Your task to perform on an android device: Open calendar and show me the fourth week of next month Image 0: 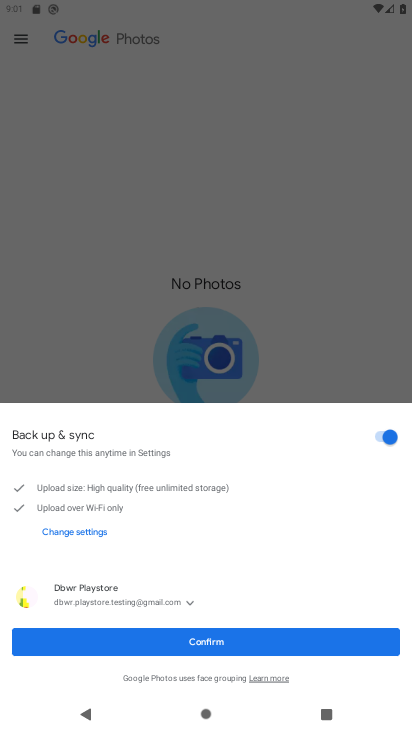
Step 0: press home button
Your task to perform on an android device: Open calendar and show me the fourth week of next month Image 1: 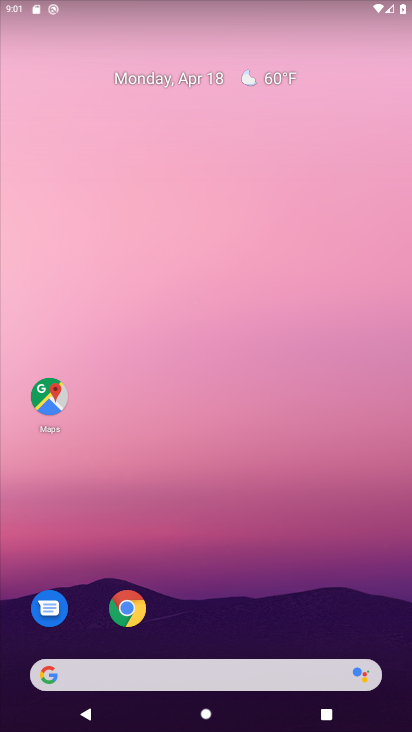
Step 1: drag from (369, 493) to (383, 25)
Your task to perform on an android device: Open calendar and show me the fourth week of next month Image 2: 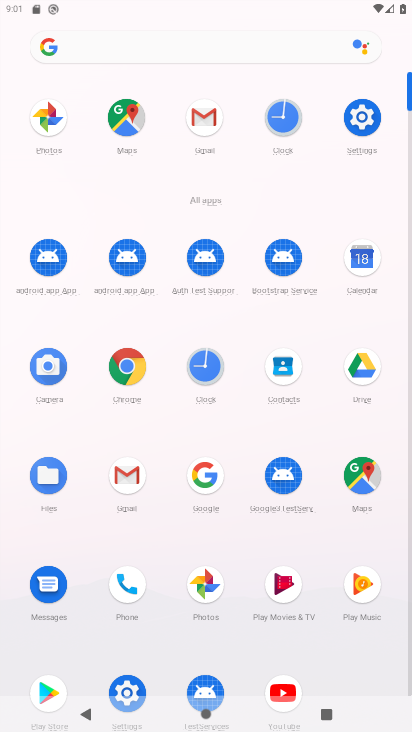
Step 2: click (353, 256)
Your task to perform on an android device: Open calendar and show me the fourth week of next month Image 3: 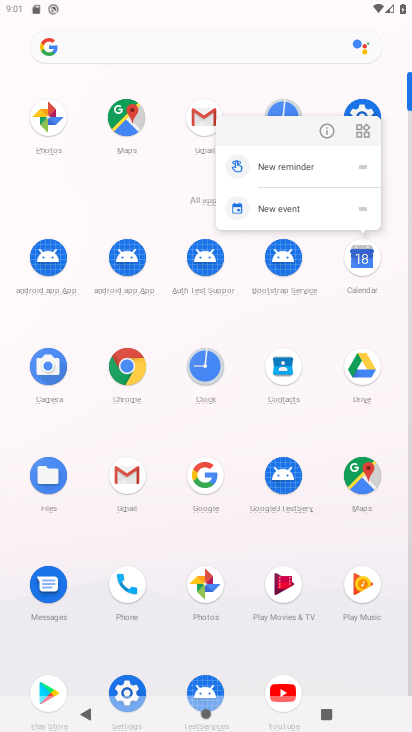
Step 3: click (368, 264)
Your task to perform on an android device: Open calendar and show me the fourth week of next month Image 4: 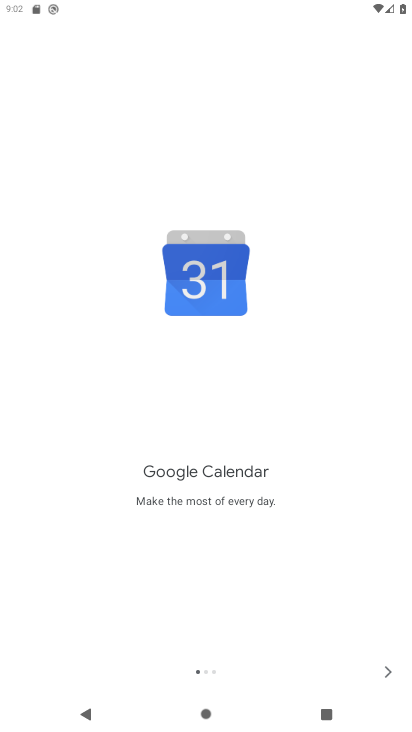
Step 4: click (391, 669)
Your task to perform on an android device: Open calendar and show me the fourth week of next month Image 5: 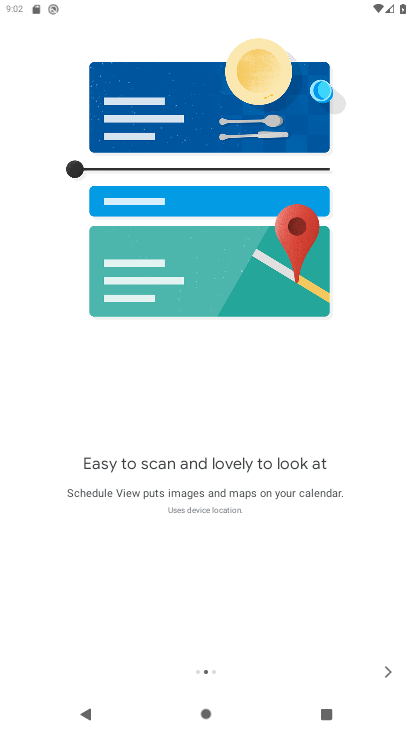
Step 5: click (388, 672)
Your task to perform on an android device: Open calendar and show me the fourth week of next month Image 6: 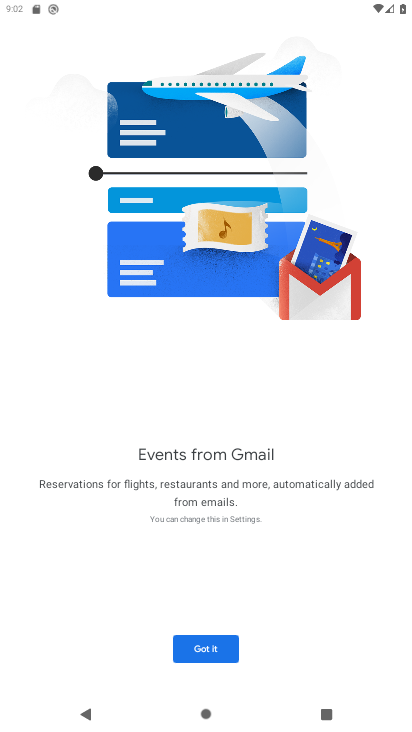
Step 6: click (222, 649)
Your task to perform on an android device: Open calendar and show me the fourth week of next month Image 7: 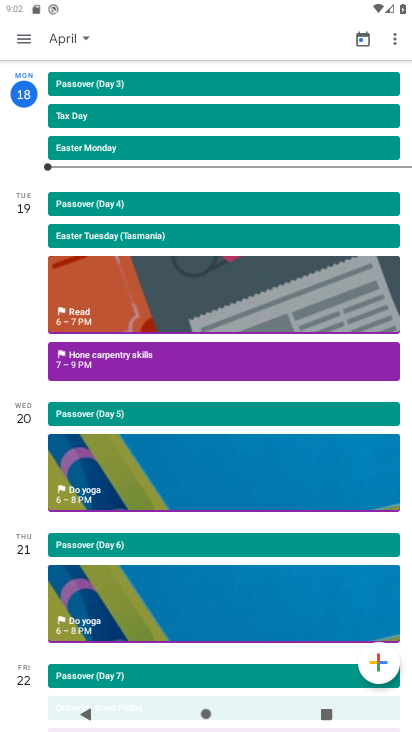
Step 7: click (68, 42)
Your task to perform on an android device: Open calendar and show me the fourth week of next month Image 8: 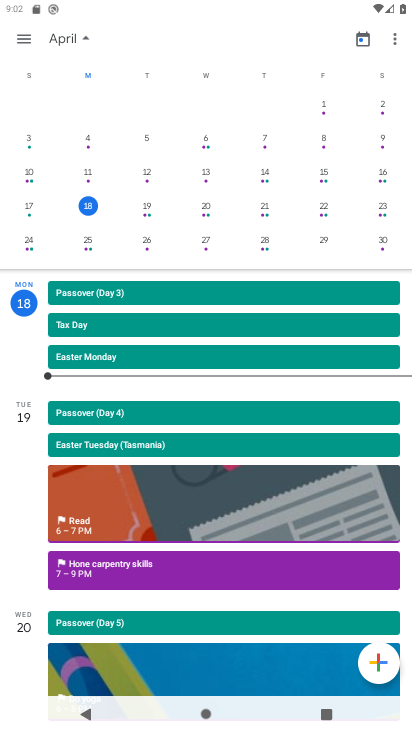
Step 8: drag from (363, 153) to (9, 148)
Your task to perform on an android device: Open calendar and show me the fourth week of next month Image 9: 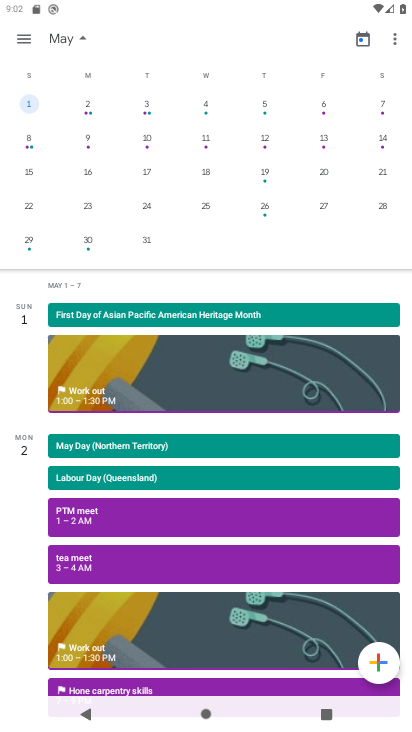
Step 9: click (29, 206)
Your task to perform on an android device: Open calendar and show me the fourth week of next month Image 10: 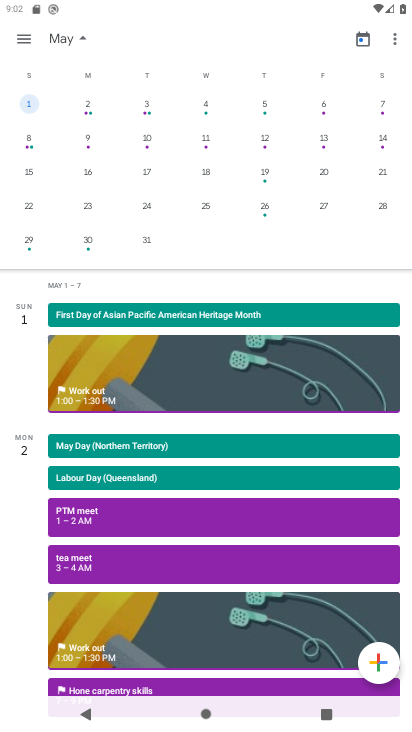
Step 10: click (31, 210)
Your task to perform on an android device: Open calendar and show me the fourth week of next month Image 11: 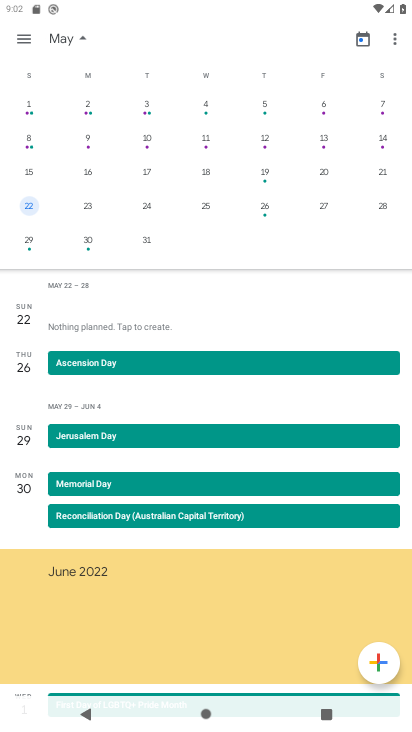
Step 11: task complete